Your task to perform on an android device: Open the phone app and click the voicemail tab. Image 0: 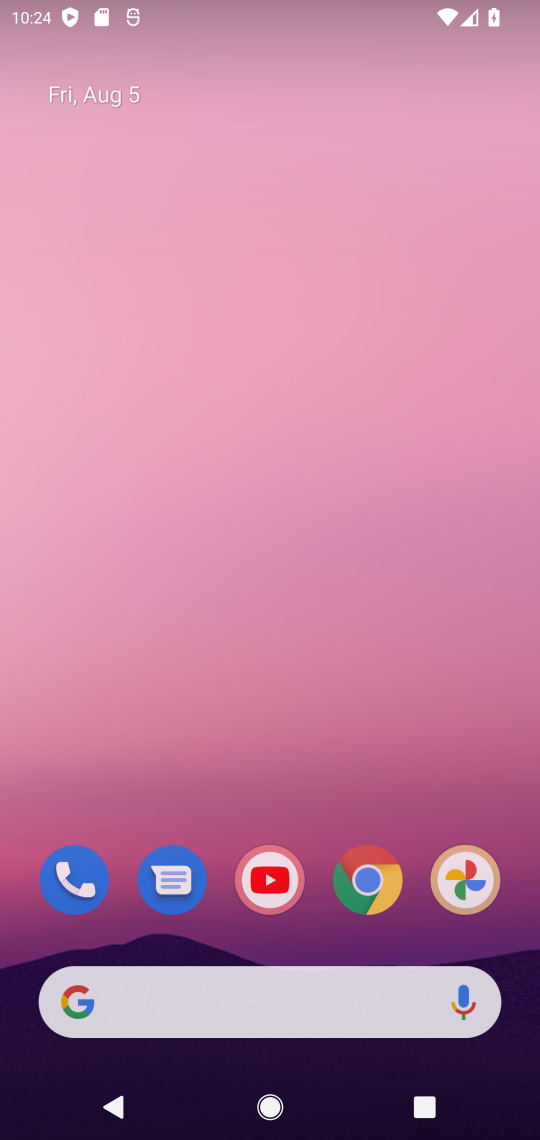
Step 0: press home button
Your task to perform on an android device: Open the phone app and click the voicemail tab. Image 1: 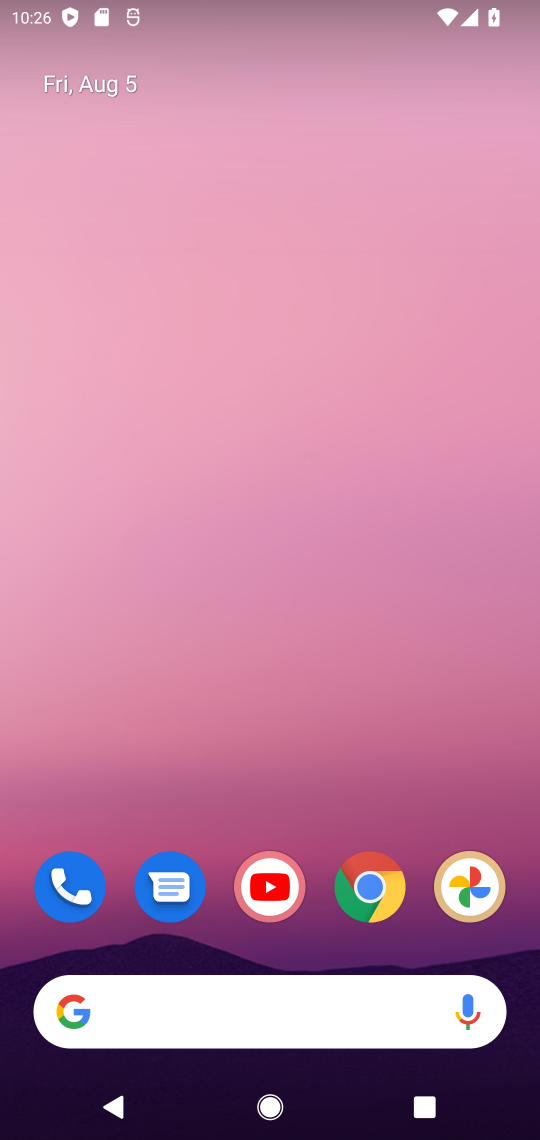
Step 1: drag from (278, 891) to (534, 173)
Your task to perform on an android device: Open the phone app and click the voicemail tab. Image 2: 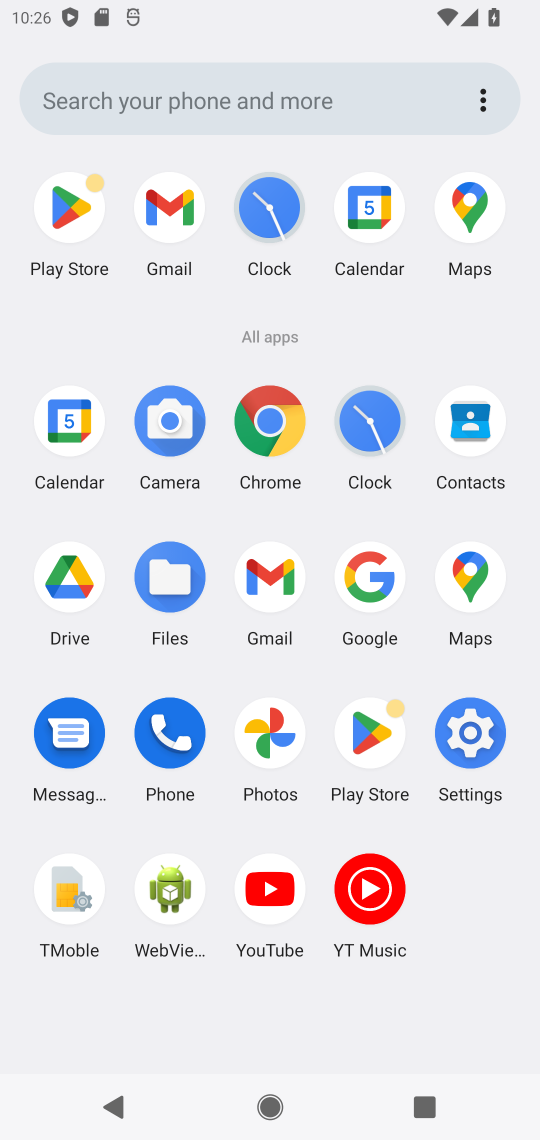
Step 2: click (170, 749)
Your task to perform on an android device: Open the phone app and click the voicemail tab. Image 3: 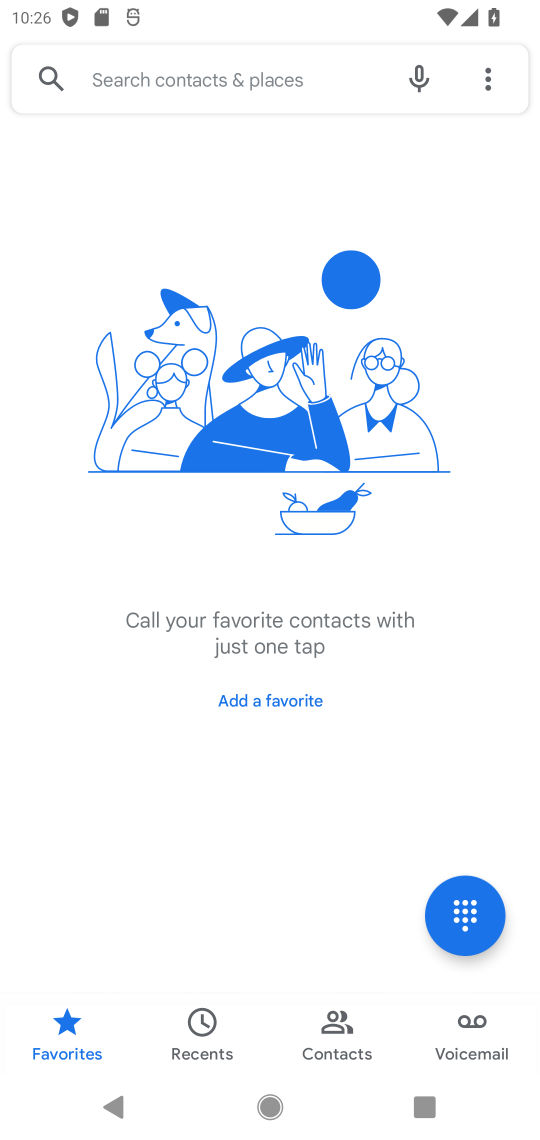
Step 3: click (445, 1027)
Your task to perform on an android device: Open the phone app and click the voicemail tab. Image 4: 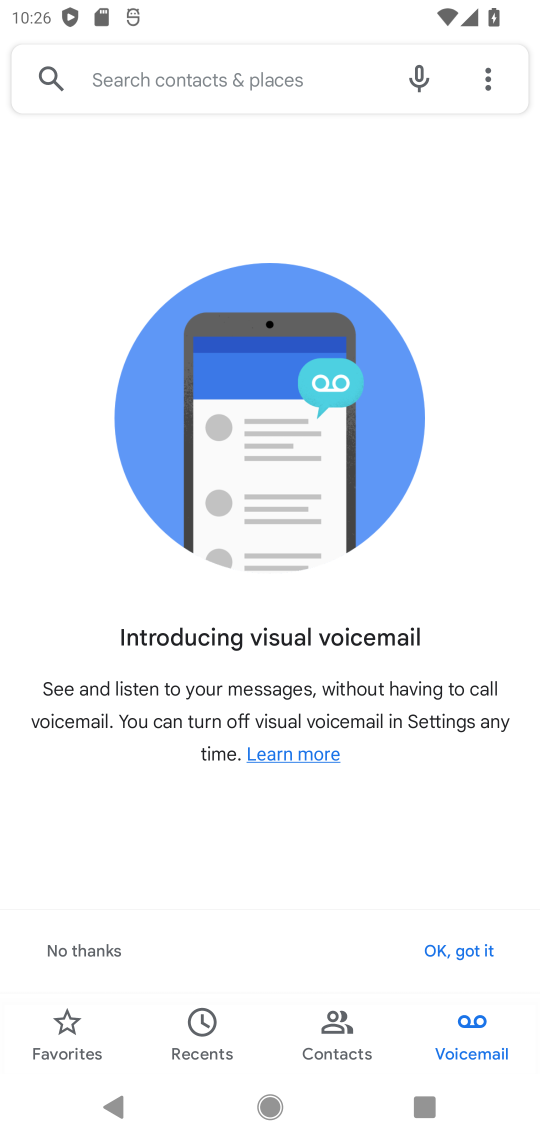
Step 4: task complete